Your task to perform on an android device: change the upload size in google photos Image 0: 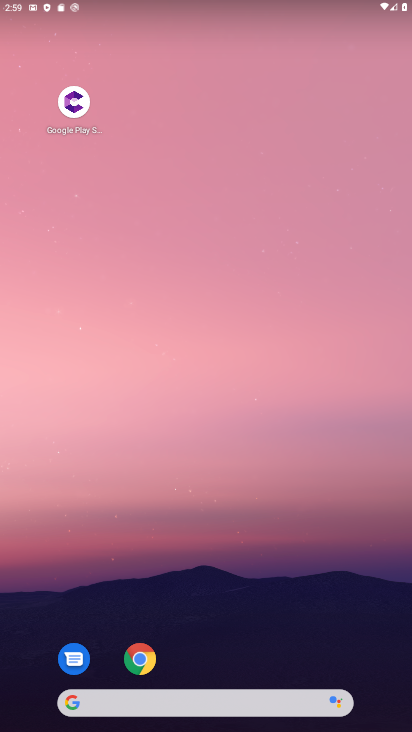
Step 0: drag from (236, 655) to (385, 4)
Your task to perform on an android device: change the upload size in google photos Image 1: 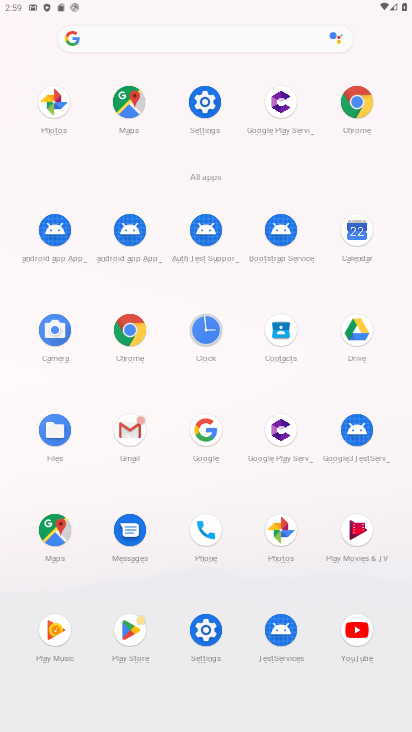
Step 1: click (282, 548)
Your task to perform on an android device: change the upload size in google photos Image 2: 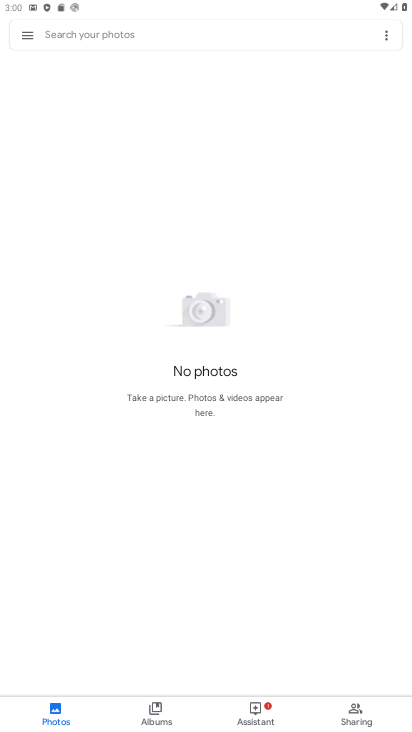
Step 2: click (21, 32)
Your task to perform on an android device: change the upload size in google photos Image 3: 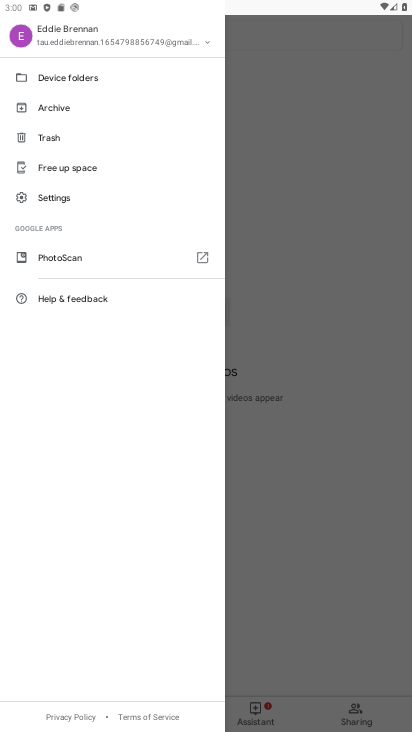
Step 3: click (65, 209)
Your task to perform on an android device: change the upload size in google photos Image 4: 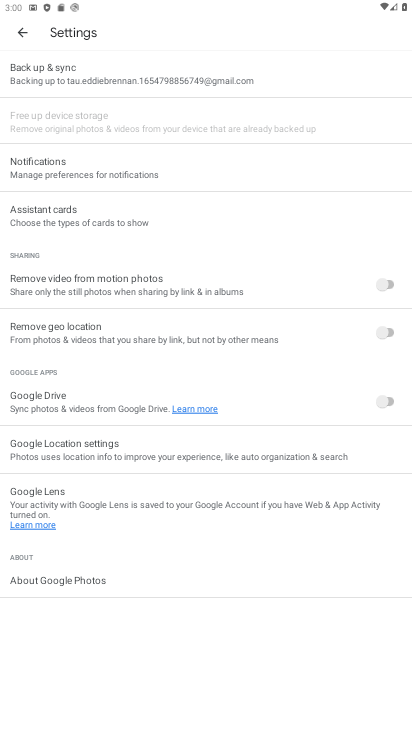
Step 4: click (91, 83)
Your task to perform on an android device: change the upload size in google photos Image 5: 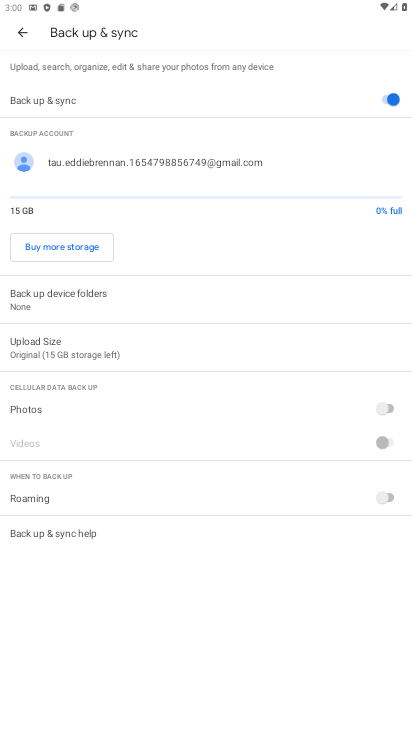
Step 5: click (178, 349)
Your task to perform on an android device: change the upload size in google photos Image 6: 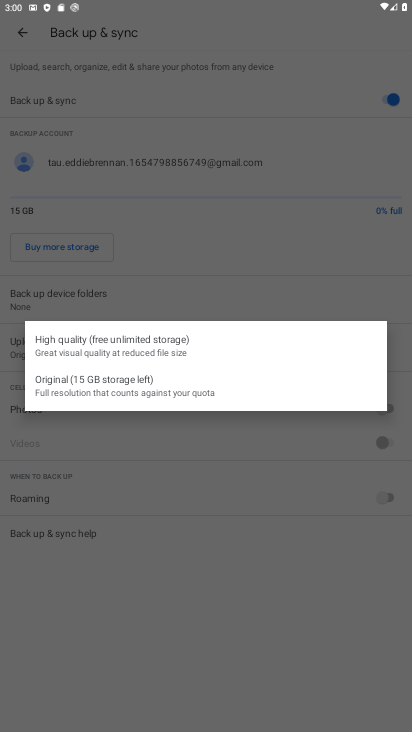
Step 6: click (181, 355)
Your task to perform on an android device: change the upload size in google photos Image 7: 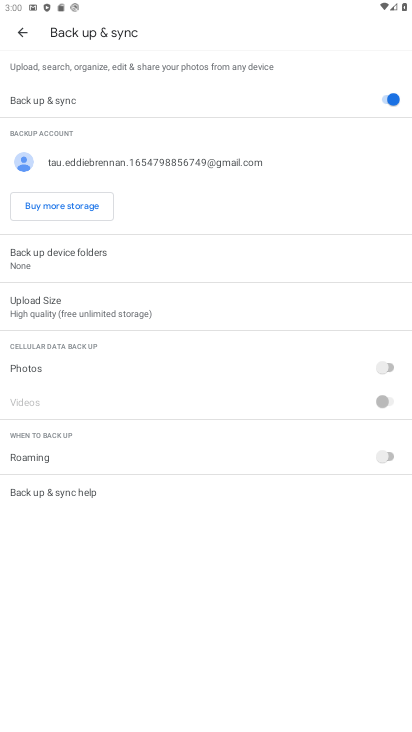
Step 7: task complete